Your task to perform on an android device: set the stopwatch Image 0: 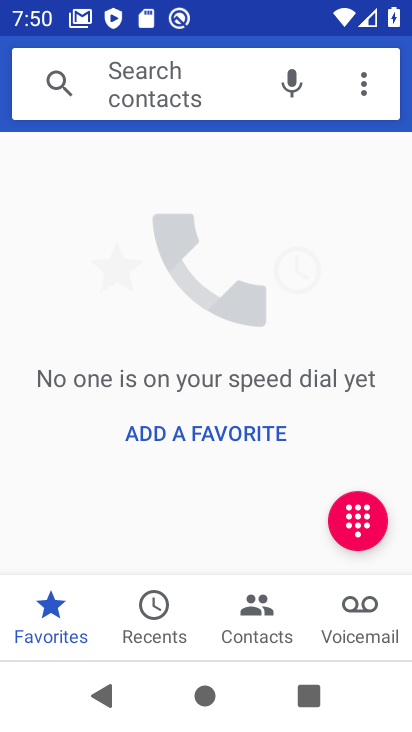
Step 0: press home button
Your task to perform on an android device: set the stopwatch Image 1: 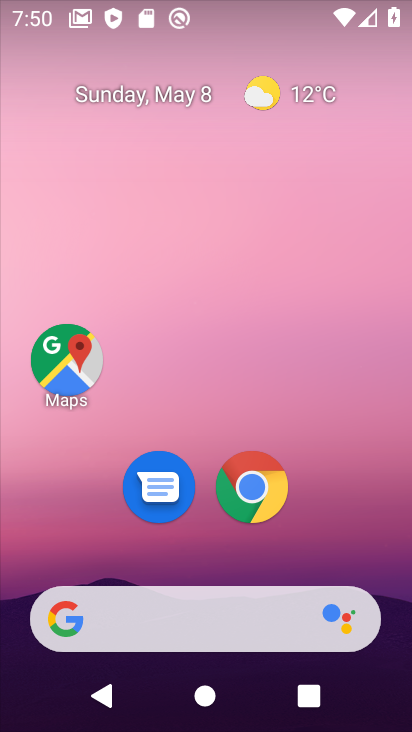
Step 1: drag from (220, 540) to (218, 90)
Your task to perform on an android device: set the stopwatch Image 2: 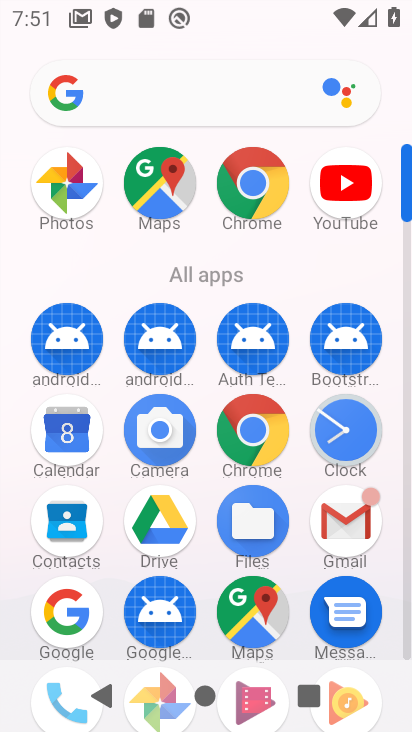
Step 2: click (342, 442)
Your task to perform on an android device: set the stopwatch Image 3: 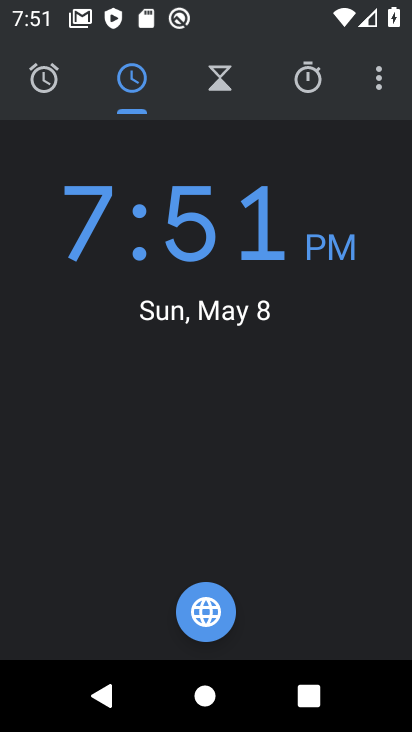
Step 3: click (309, 79)
Your task to perform on an android device: set the stopwatch Image 4: 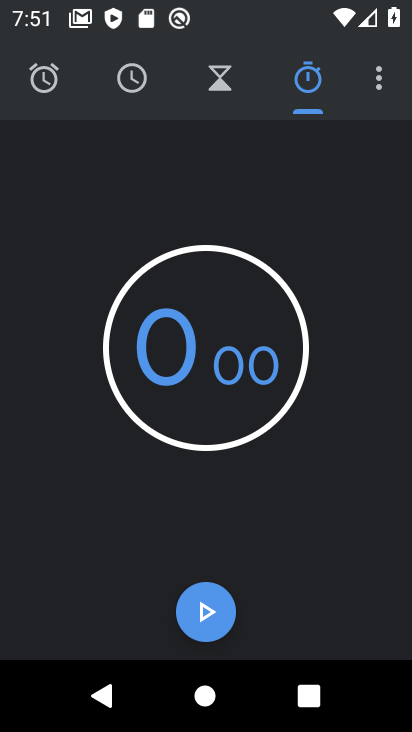
Step 4: click (209, 607)
Your task to perform on an android device: set the stopwatch Image 5: 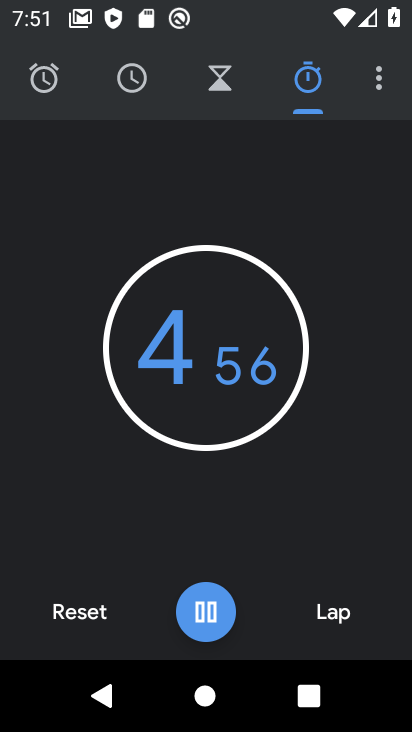
Step 5: task complete